Your task to perform on an android device: Go to eBay Image 0: 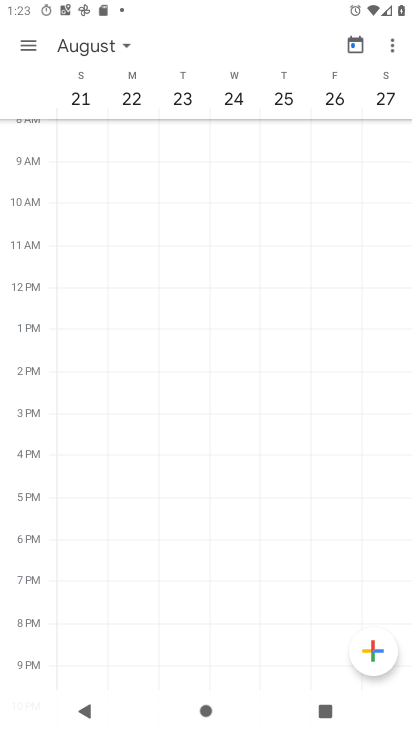
Step 0: press home button
Your task to perform on an android device: Go to eBay Image 1: 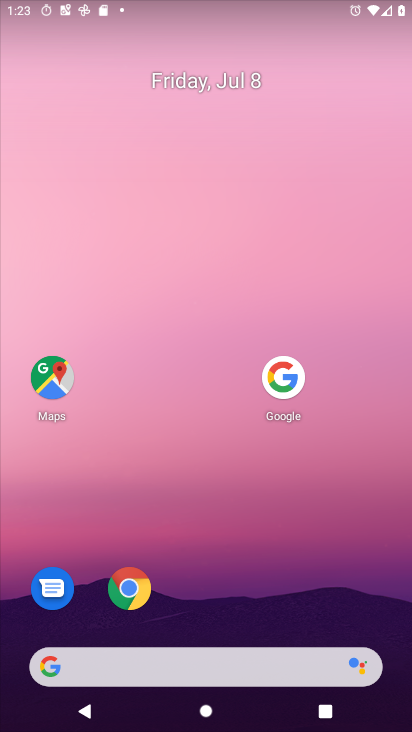
Step 1: click (129, 588)
Your task to perform on an android device: Go to eBay Image 2: 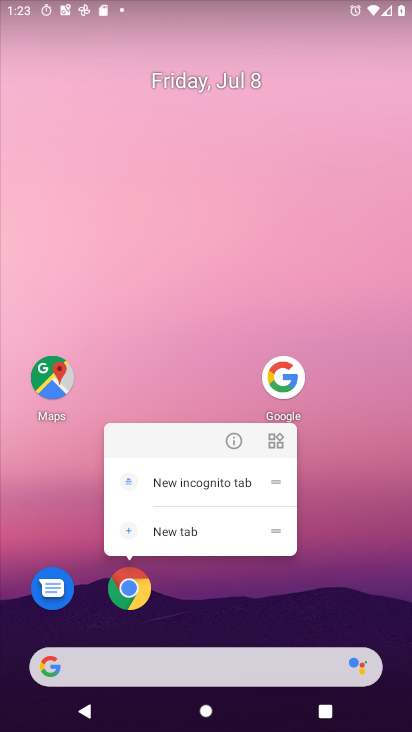
Step 2: click (139, 594)
Your task to perform on an android device: Go to eBay Image 3: 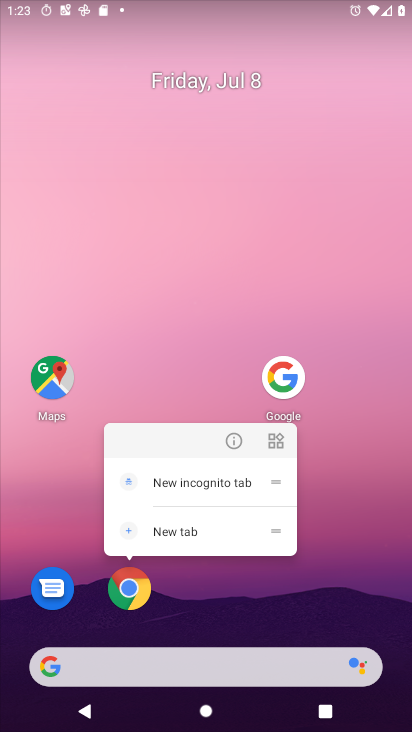
Step 3: click (130, 587)
Your task to perform on an android device: Go to eBay Image 4: 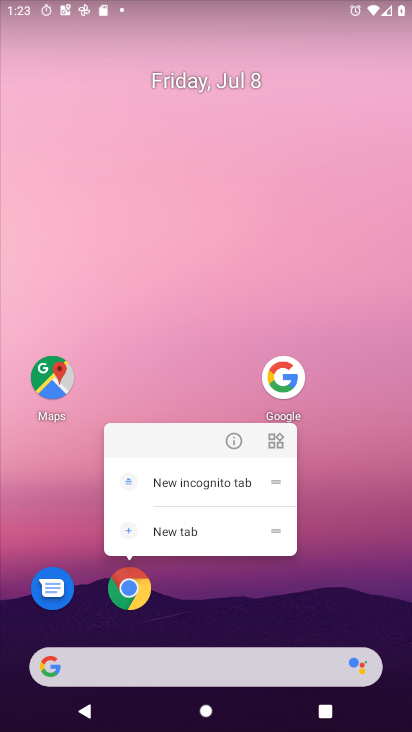
Step 4: click (130, 587)
Your task to perform on an android device: Go to eBay Image 5: 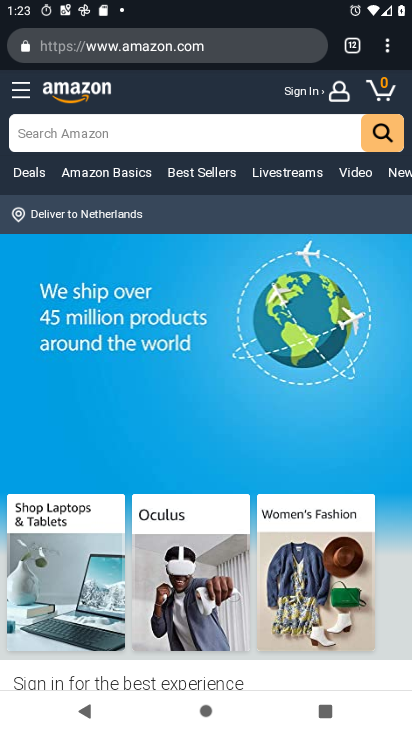
Step 5: drag from (386, 46) to (246, 89)
Your task to perform on an android device: Go to eBay Image 6: 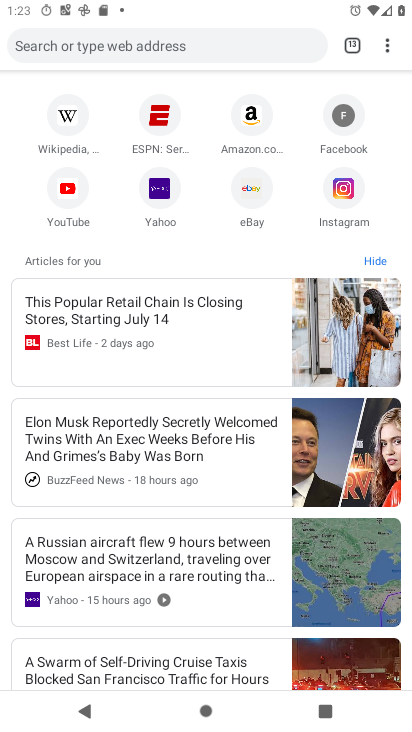
Step 6: click (244, 200)
Your task to perform on an android device: Go to eBay Image 7: 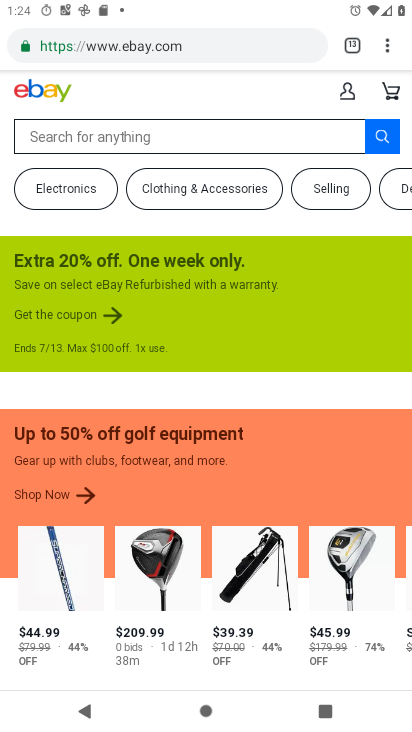
Step 7: task complete